Your task to perform on an android device: toggle airplane mode Image 0: 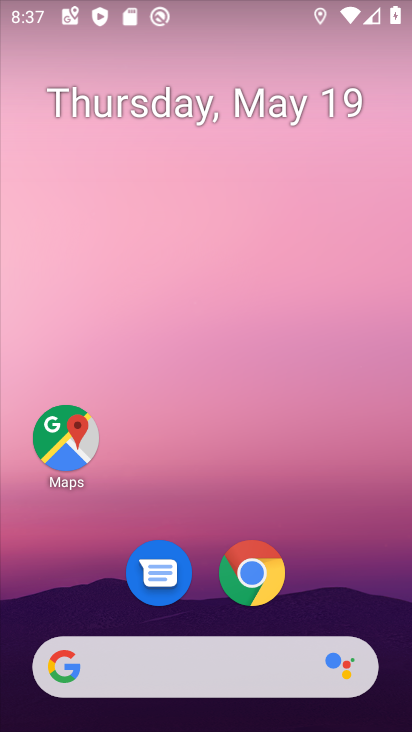
Step 0: drag from (356, 614) to (315, 3)
Your task to perform on an android device: toggle airplane mode Image 1: 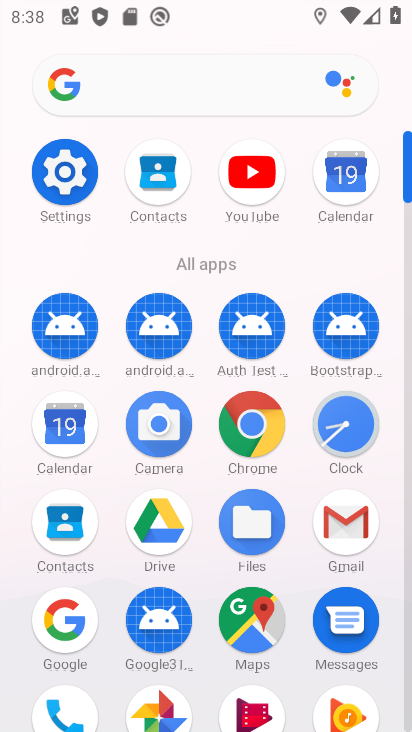
Step 1: click (53, 164)
Your task to perform on an android device: toggle airplane mode Image 2: 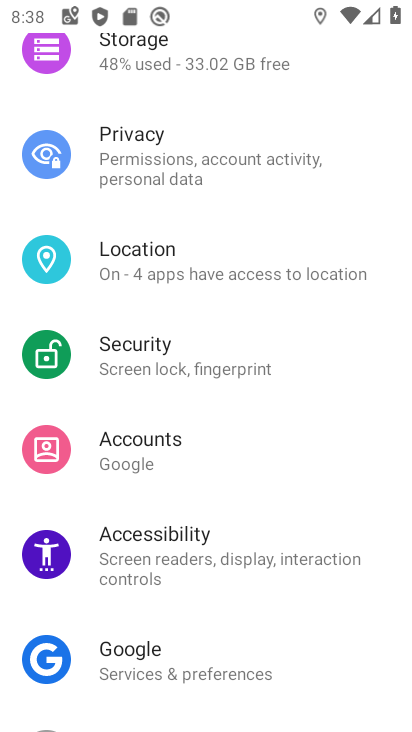
Step 2: drag from (286, 152) to (295, 496)
Your task to perform on an android device: toggle airplane mode Image 3: 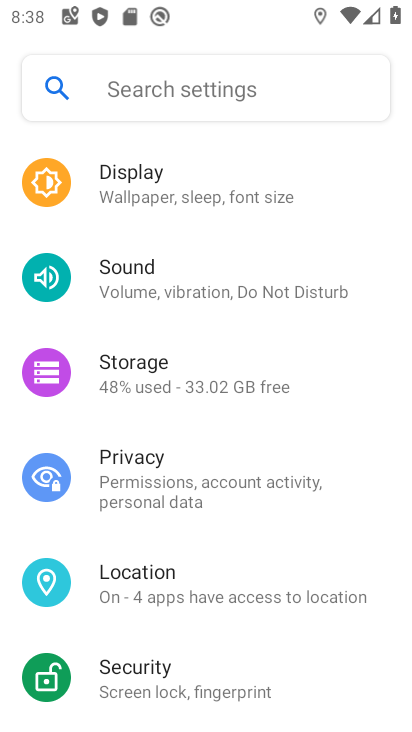
Step 3: drag from (243, 231) to (247, 580)
Your task to perform on an android device: toggle airplane mode Image 4: 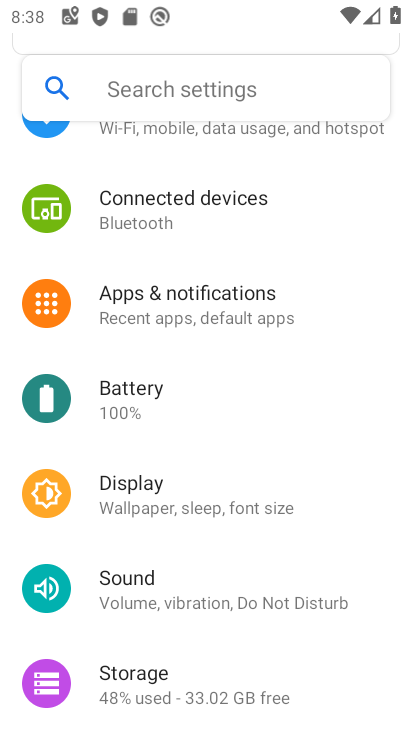
Step 4: drag from (202, 218) to (194, 563)
Your task to perform on an android device: toggle airplane mode Image 5: 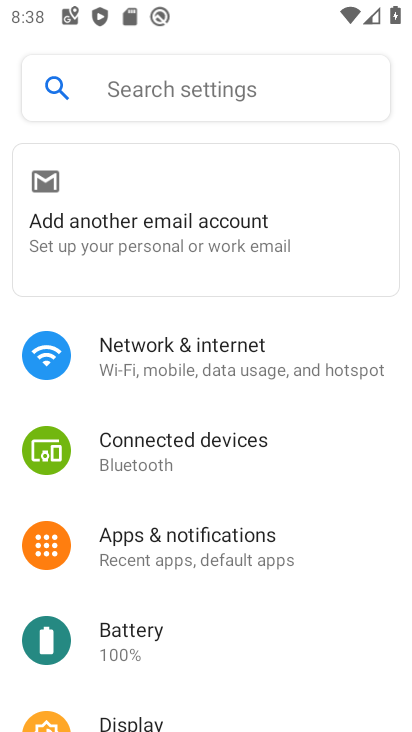
Step 5: click (200, 360)
Your task to perform on an android device: toggle airplane mode Image 6: 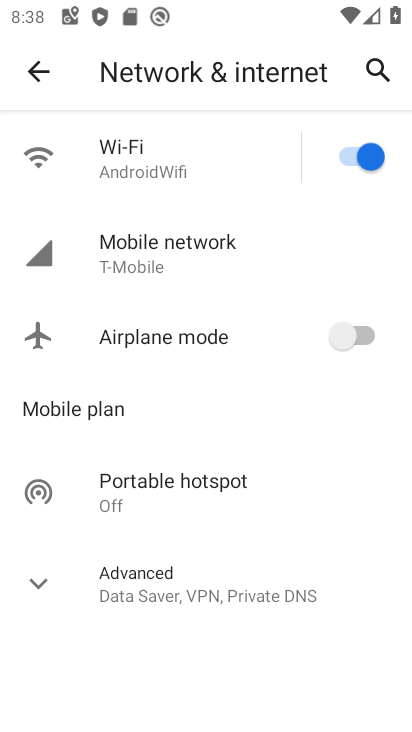
Step 6: click (338, 338)
Your task to perform on an android device: toggle airplane mode Image 7: 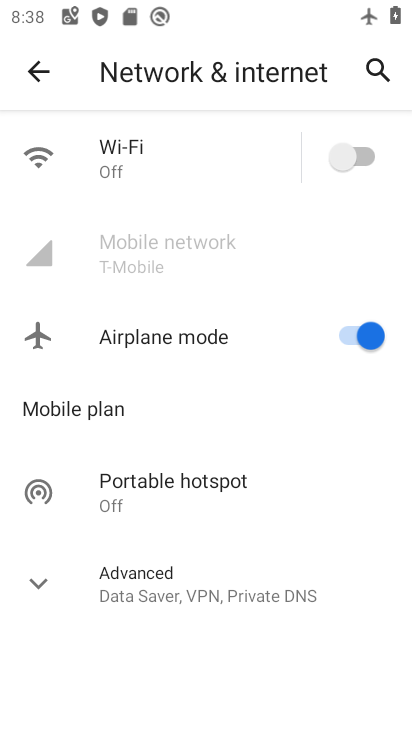
Step 7: task complete